Your task to perform on an android device: Open my contact list Image 0: 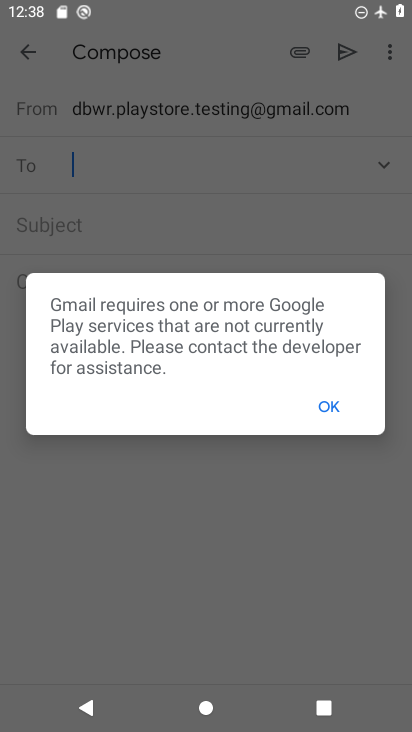
Step 0: press home button
Your task to perform on an android device: Open my contact list Image 1: 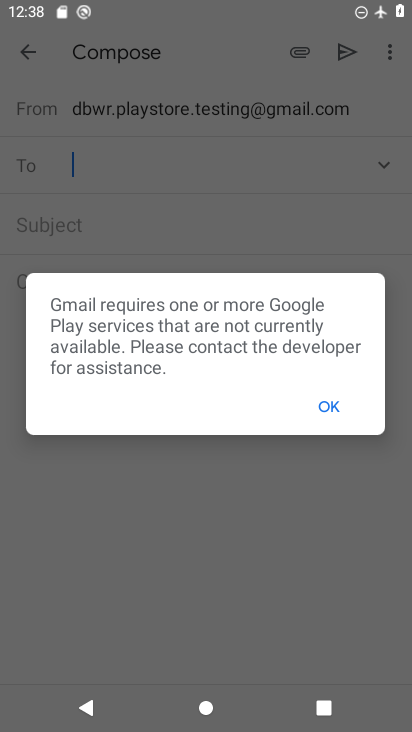
Step 1: press home button
Your task to perform on an android device: Open my contact list Image 2: 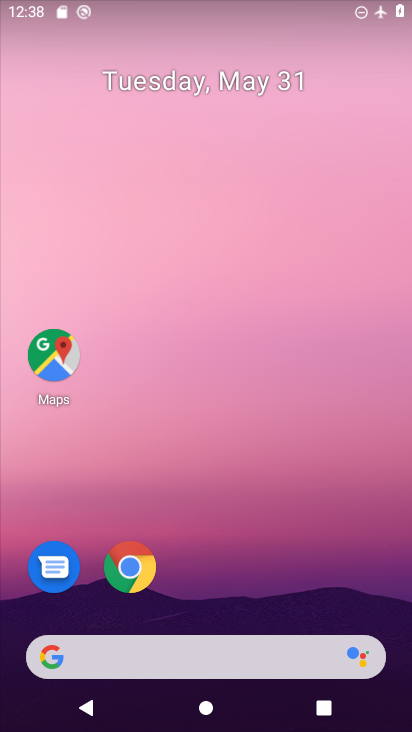
Step 2: drag from (247, 570) to (248, 172)
Your task to perform on an android device: Open my contact list Image 3: 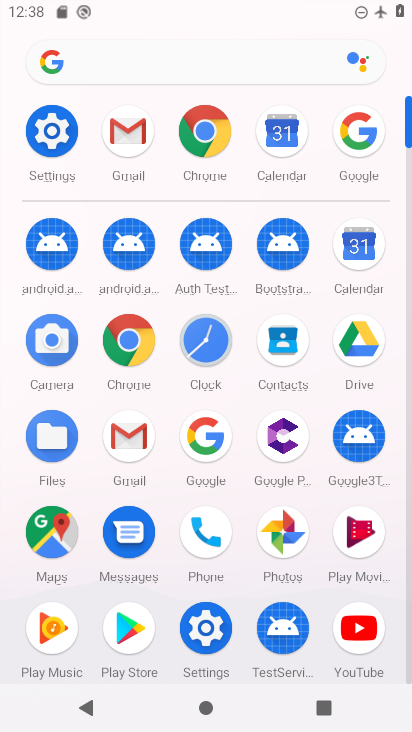
Step 3: click (265, 361)
Your task to perform on an android device: Open my contact list Image 4: 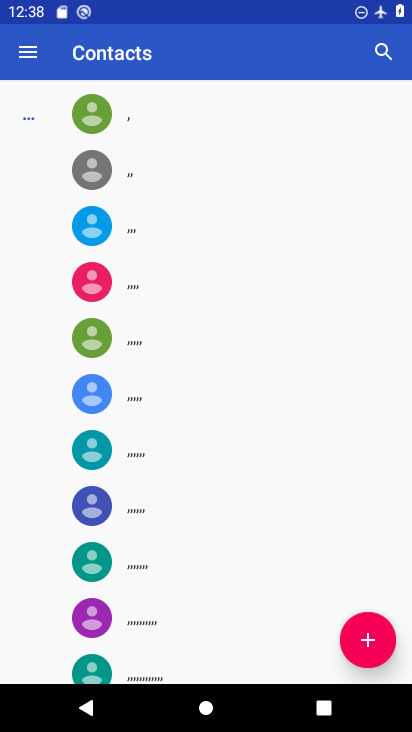
Step 4: task complete